Your task to perform on an android device: turn on data saver in the chrome app Image 0: 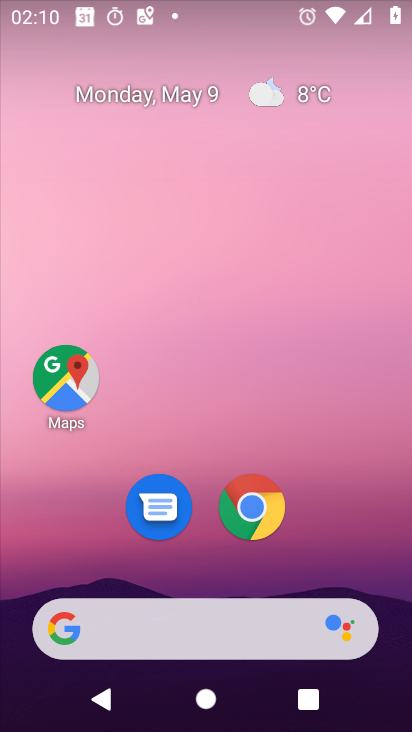
Step 0: click (251, 501)
Your task to perform on an android device: turn on data saver in the chrome app Image 1: 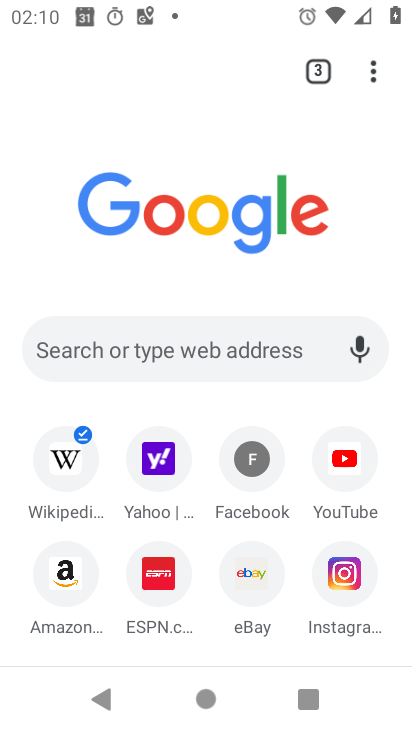
Step 1: click (372, 77)
Your task to perform on an android device: turn on data saver in the chrome app Image 2: 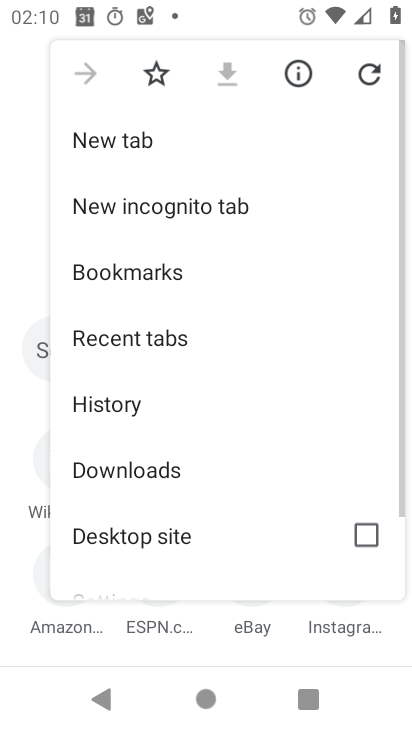
Step 2: drag from (199, 535) to (183, 168)
Your task to perform on an android device: turn on data saver in the chrome app Image 3: 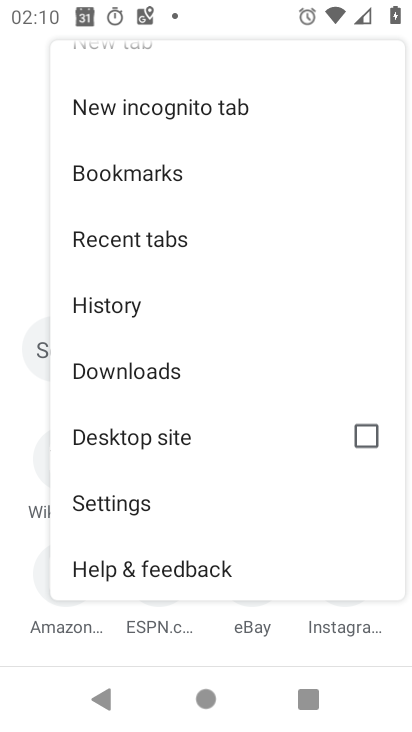
Step 3: click (144, 494)
Your task to perform on an android device: turn on data saver in the chrome app Image 4: 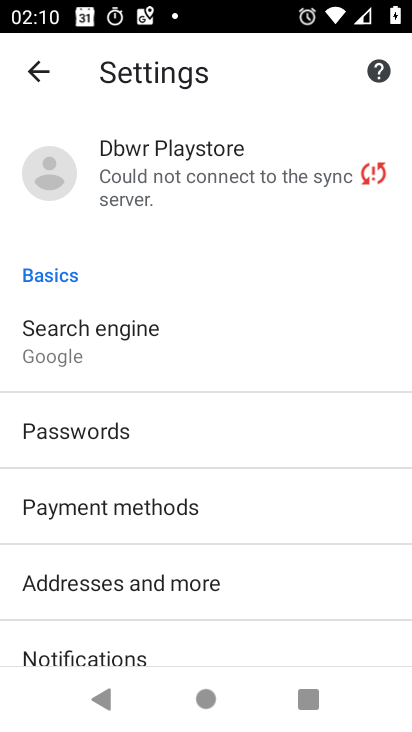
Step 4: drag from (169, 650) to (161, 345)
Your task to perform on an android device: turn on data saver in the chrome app Image 5: 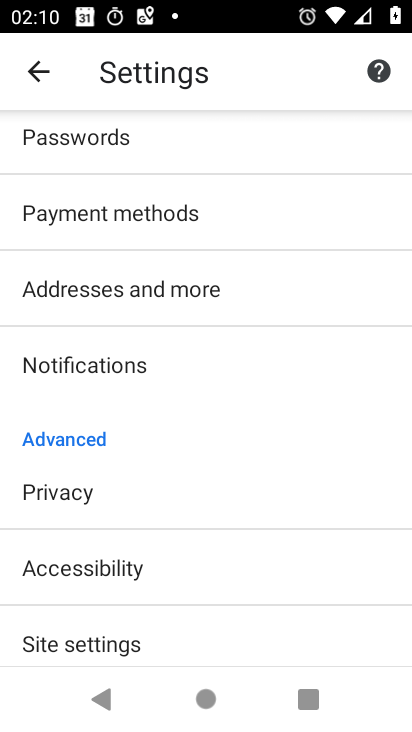
Step 5: drag from (170, 630) to (176, 335)
Your task to perform on an android device: turn on data saver in the chrome app Image 6: 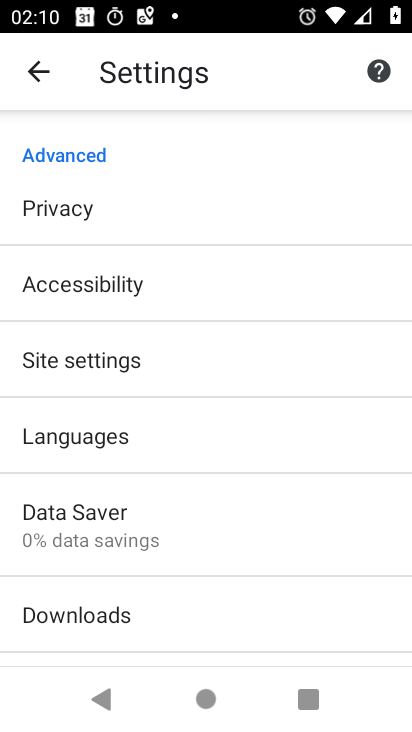
Step 6: click (105, 513)
Your task to perform on an android device: turn on data saver in the chrome app Image 7: 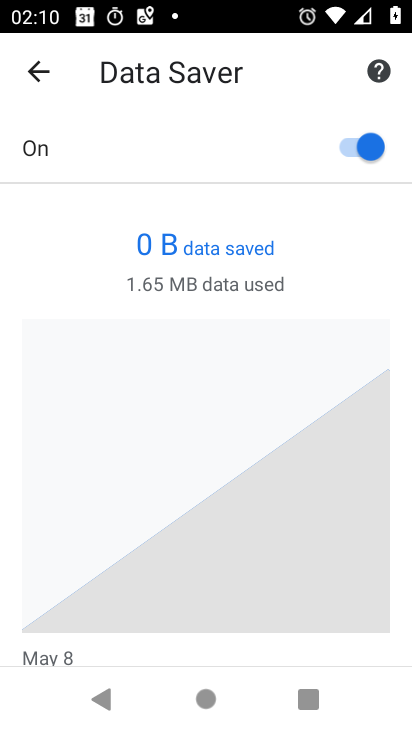
Step 7: task complete